Your task to perform on an android device: turn on improve location accuracy Image 0: 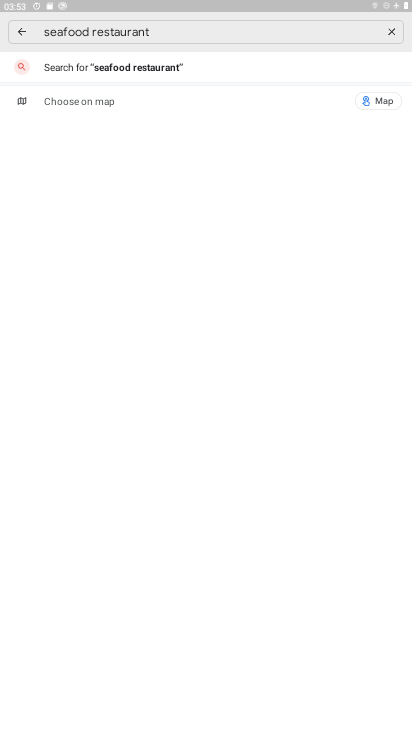
Step 0: press home button
Your task to perform on an android device: turn on improve location accuracy Image 1: 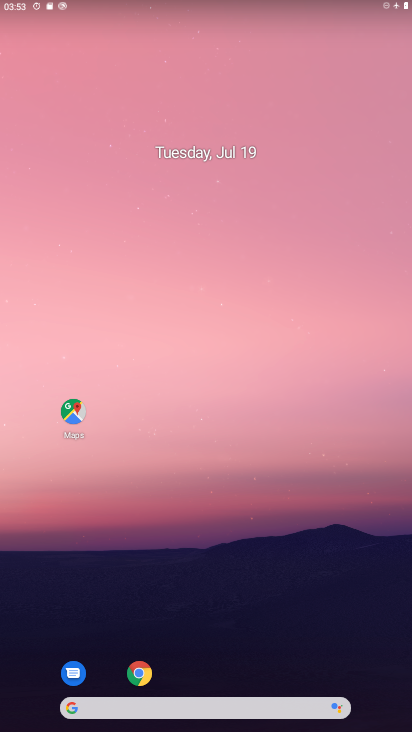
Step 1: drag from (219, 638) to (187, 43)
Your task to perform on an android device: turn on improve location accuracy Image 2: 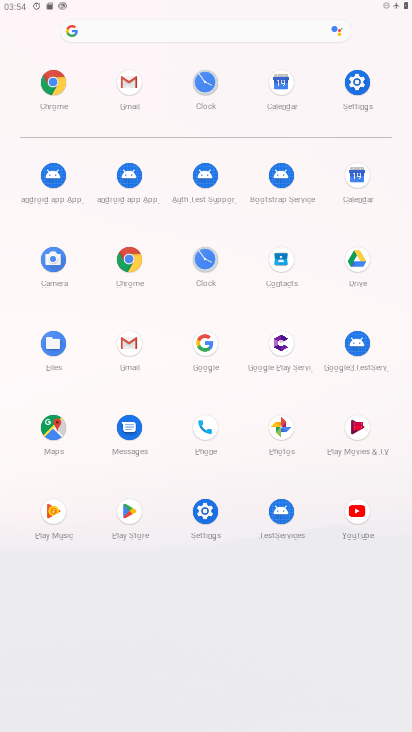
Step 2: click (201, 517)
Your task to perform on an android device: turn on improve location accuracy Image 3: 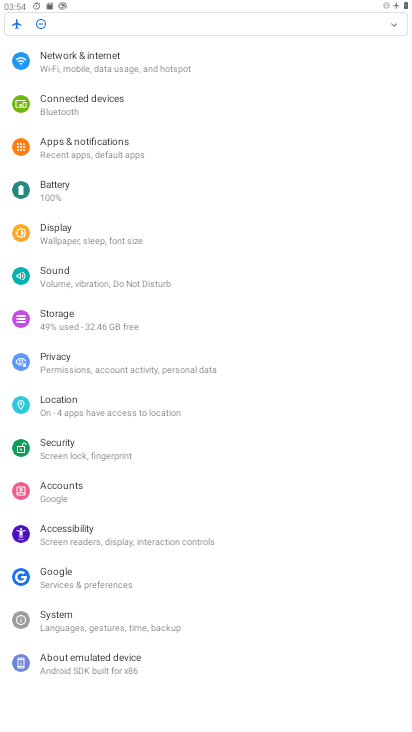
Step 3: click (98, 417)
Your task to perform on an android device: turn on improve location accuracy Image 4: 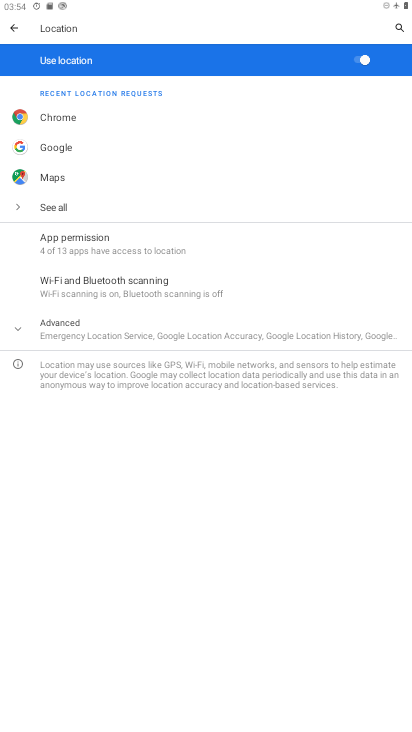
Step 4: click (74, 324)
Your task to perform on an android device: turn on improve location accuracy Image 5: 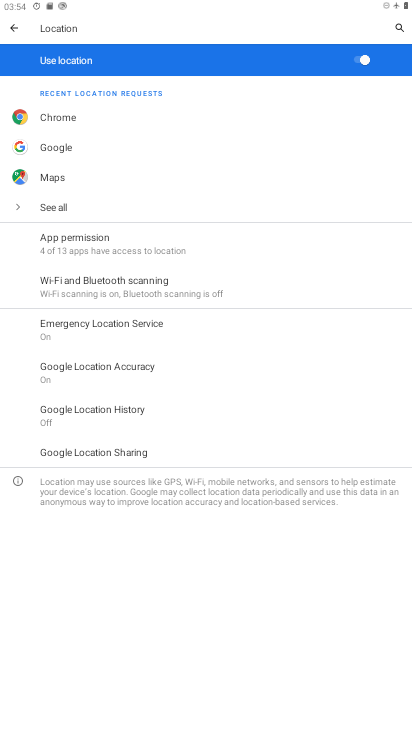
Step 5: click (112, 376)
Your task to perform on an android device: turn on improve location accuracy Image 6: 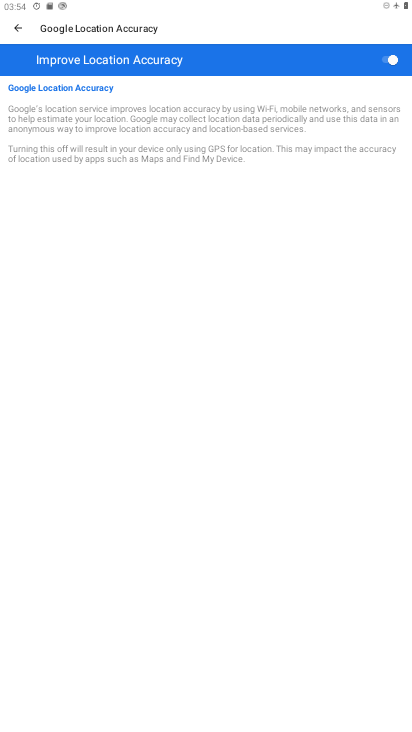
Step 6: task complete